Your task to perform on an android device: Open Reddit.com Image 0: 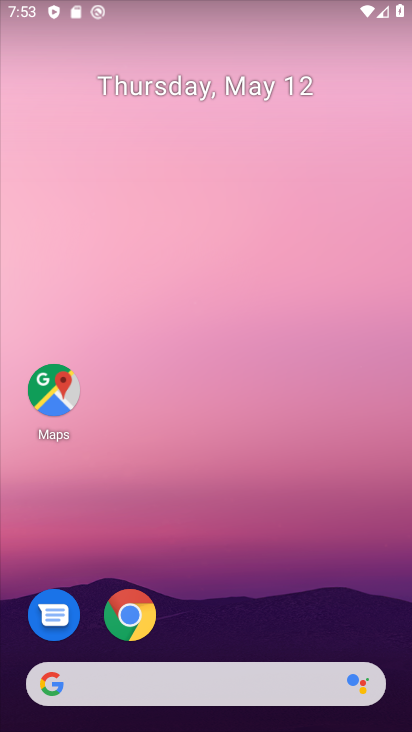
Step 0: drag from (285, 571) to (255, 13)
Your task to perform on an android device: Open Reddit.com Image 1: 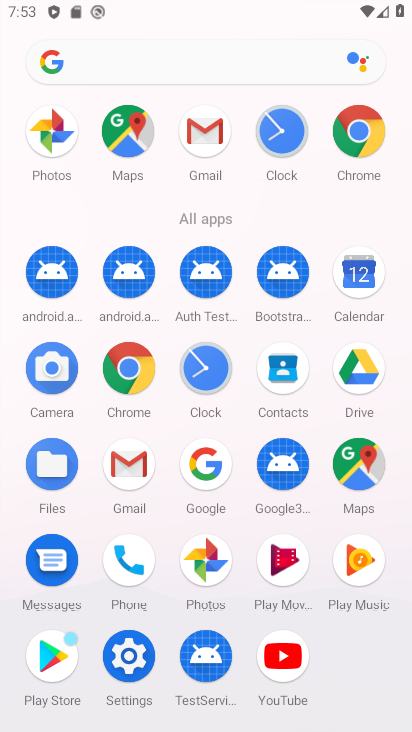
Step 1: drag from (9, 524) to (8, 209)
Your task to perform on an android device: Open Reddit.com Image 2: 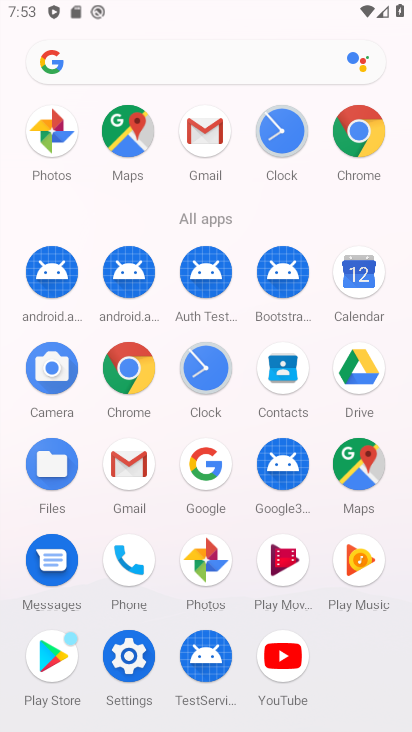
Step 2: click (124, 364)
Your task to perform on an android device: Open Reddit.com Image 3: 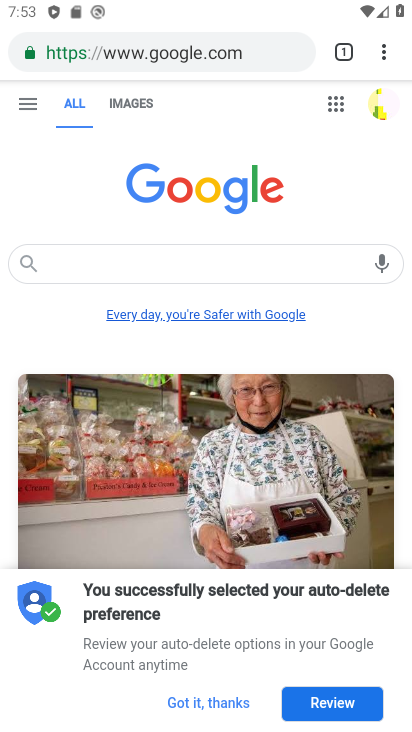
Step 3: click (145, 52)
Your task to perform on an android device: Open Reddit.com Image 4: 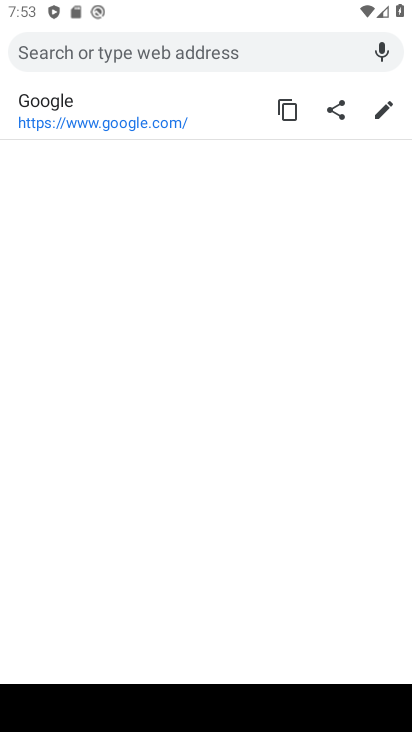
Step 4: type "Reddit.com"
Your task to perform on an android device: Open Reddit.com Image 5: 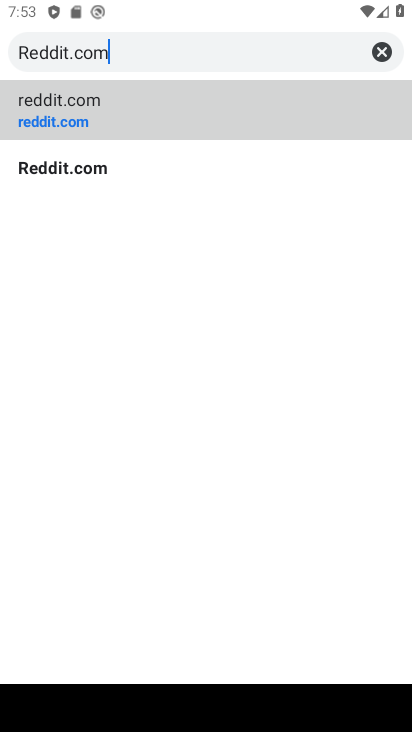
Step 5: type ""
Your task to perform on an android device: Open Reddit.com Image 6: 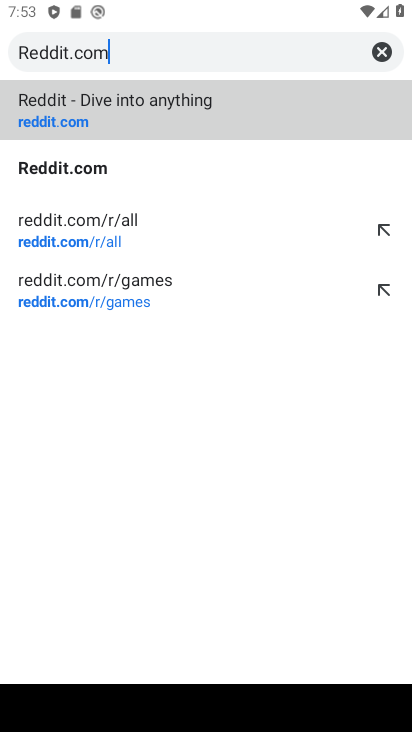
Step 6: click (223, 107)
Your task to perform on an android device: Open Reddit.com Image 7: 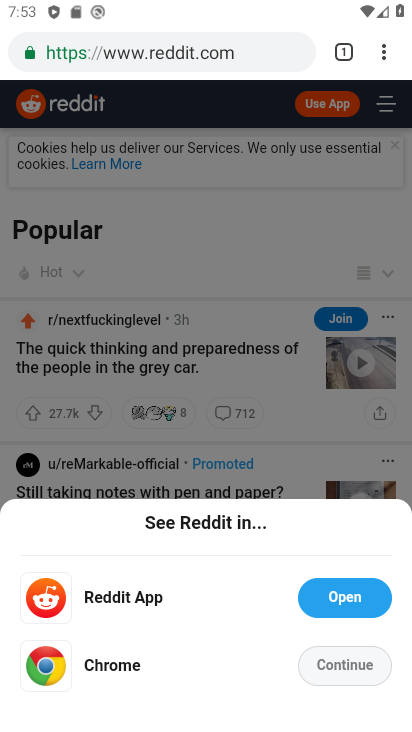
Step 7: task complete